Your task to perform on an android device: open chrome privacy settings Image 0: 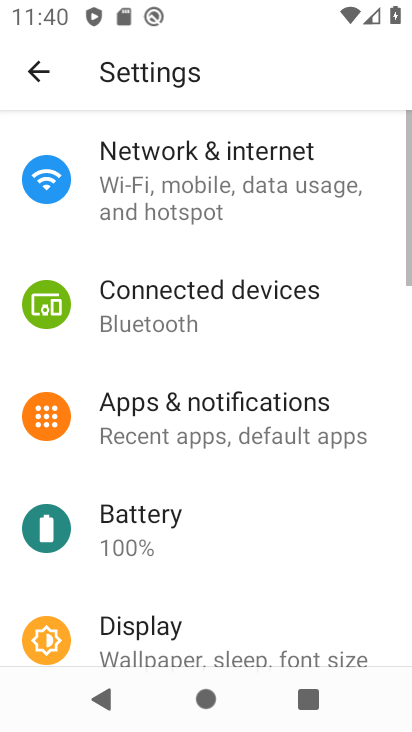
Step 0: press home button
Your task to perform on an android device: open chrome privacy settings Image 1: 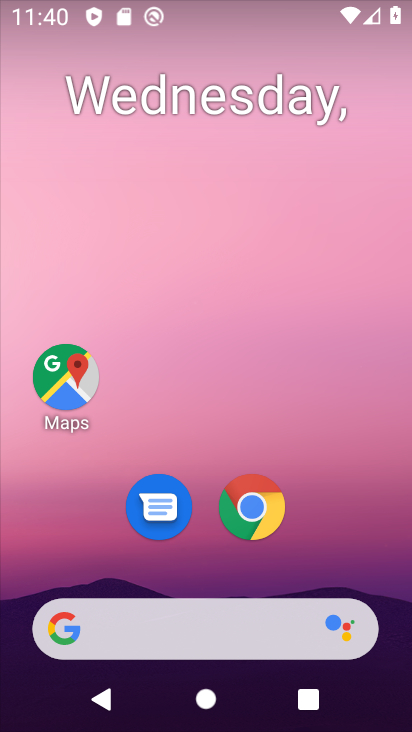
Step 1: click (239, 514)
Your task to perform on an android device: open chrome privacy settings Image 2: 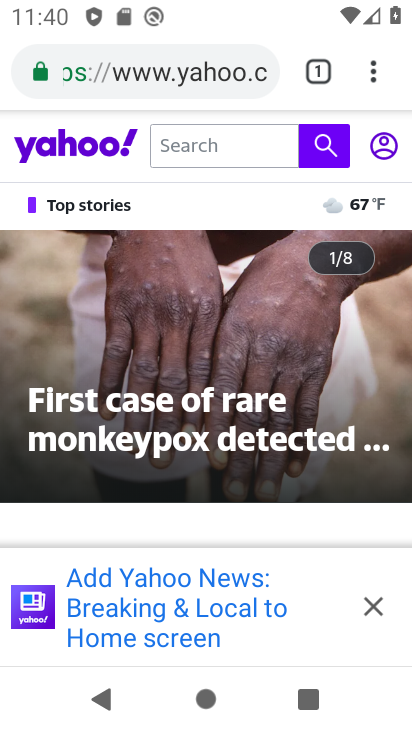
Step 2: click (374, 78)
Your task to perform on an android device: open chrome privacy settings Image 3: 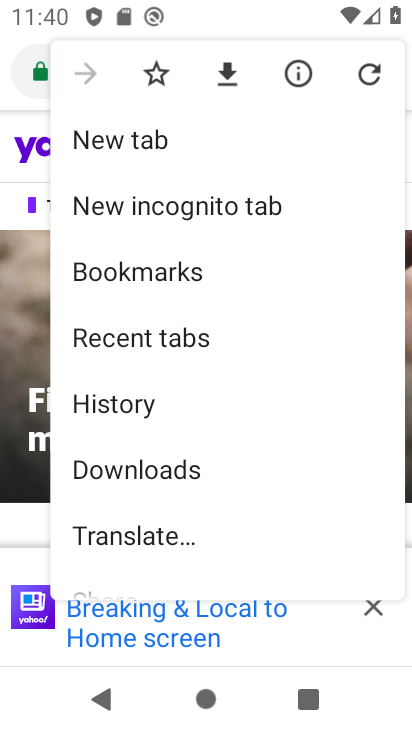
Step 3: drag from (177, 489) to (149, 138)
Your task to perform on an android device: open chrome privacy settings Image 4: 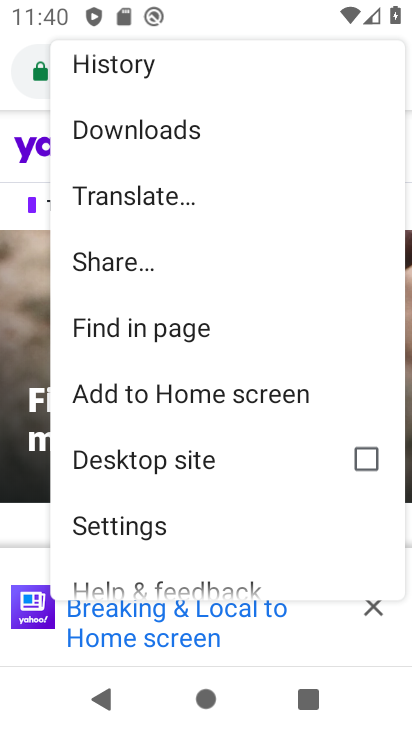
Step 4: click (176, 530)
Your task to perform on an android device: open chrome privacy settings Image 5: 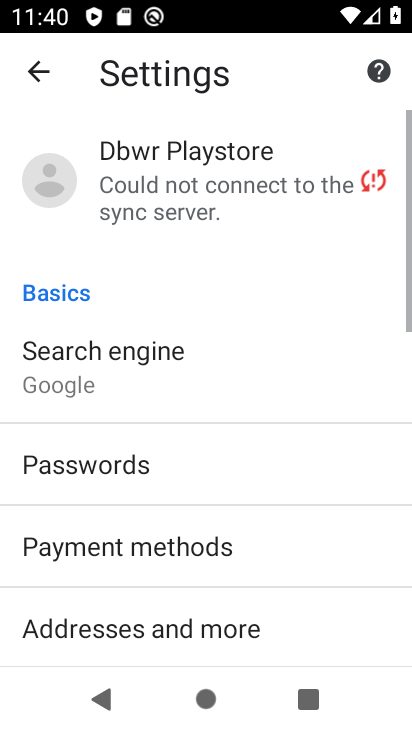
Step 5: drag from (198, 506) to (180, 177)
Your task to perform on an android device: open chrome privacy settings Image 6: 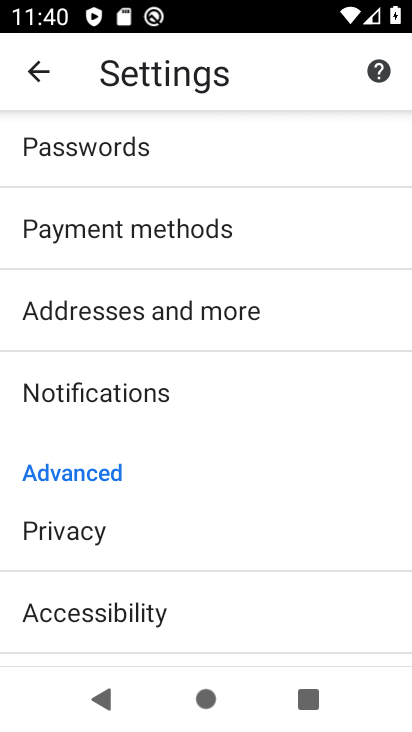
Step 6: click (110, 543)
Your task to perform on an android device: open chrome privacy settings Image 7: 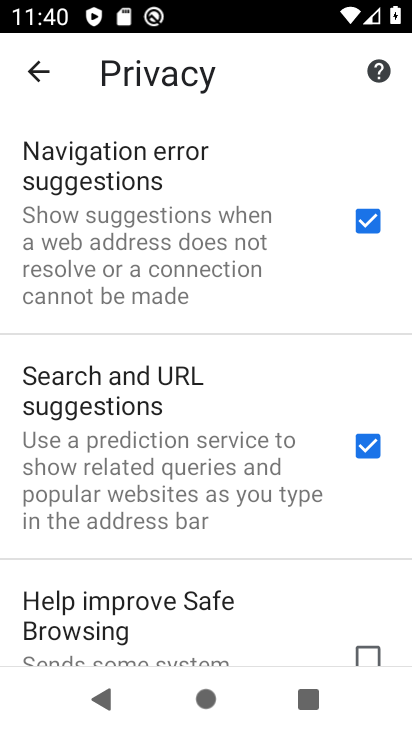
Step 7: task complete